Your task to perform on an android device: change the clock display to show seconds Image 0: 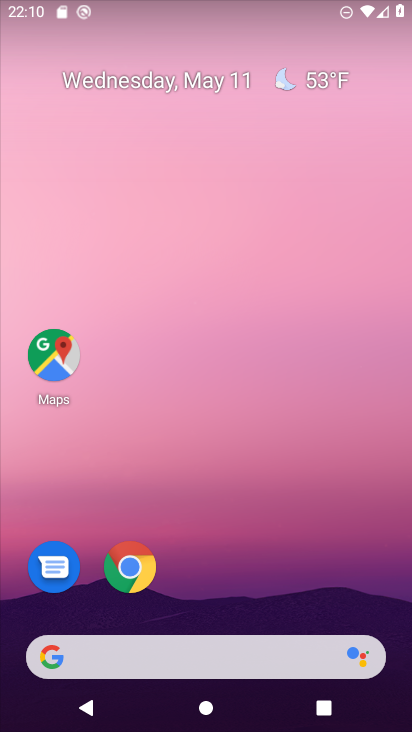
Step 0: drag from (294, 713) to (267, 12)
Your task to perform on an android device: change the clock display to show seconds Image 1: 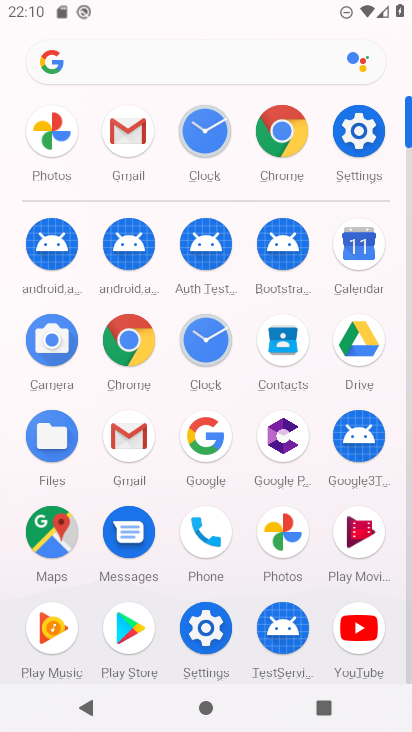
Step 1: click (211, 330)
Your task to perform on an android device: change the clock display to show seconds Image 2: 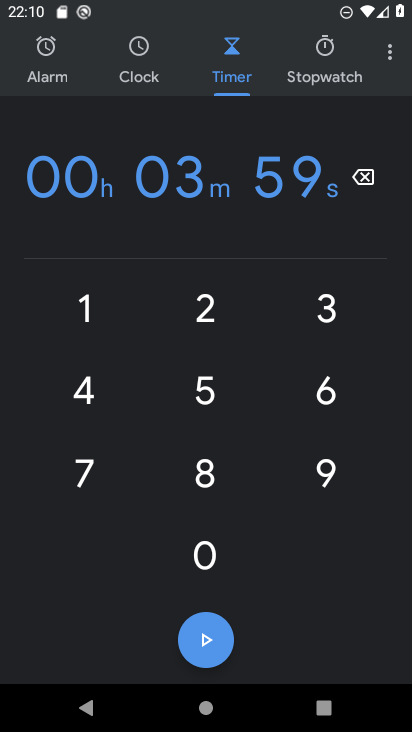
Step 2: click (390, 47)
Your task to perform on an android device: change the clock display to show seconds Image 3: 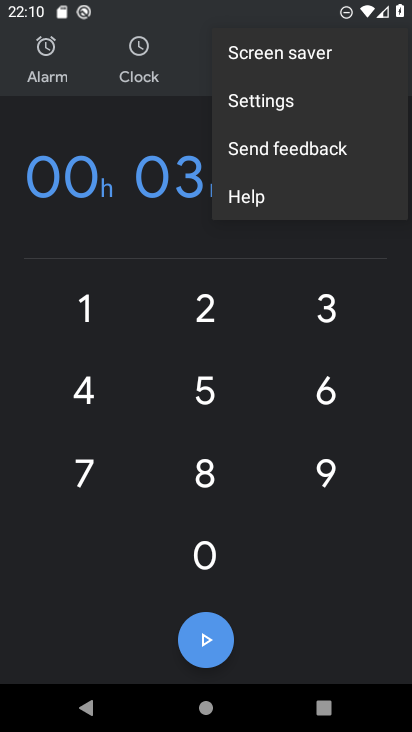
Step 3: click (307, 104)
Your task to perform on an android device: change the clock display to show seconds Image 4: 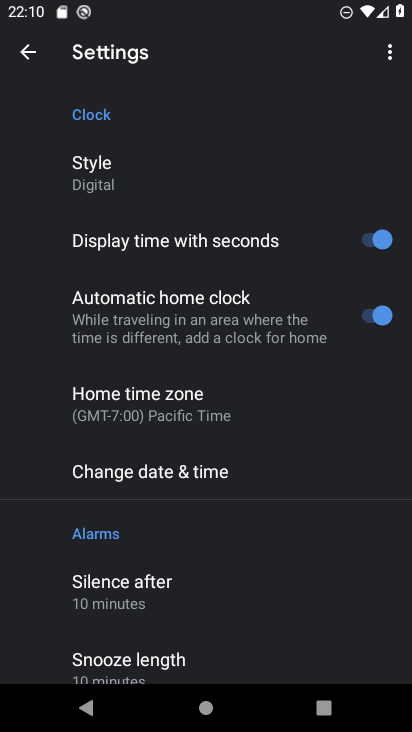
Step 4: task complete